Your task to perform on an android device: check android version Image 0: 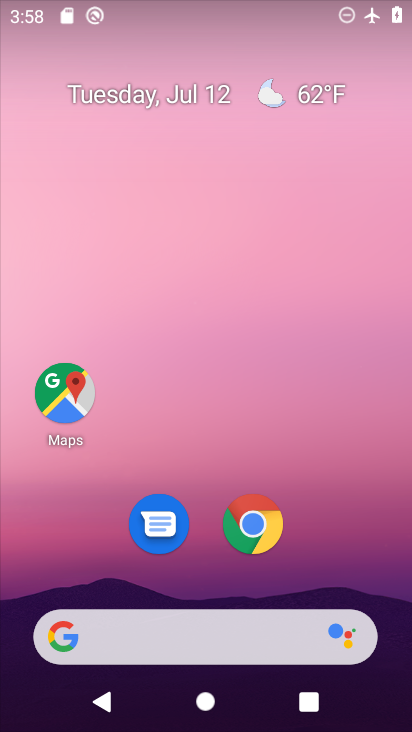
Step 0: drag from (350, 556) to (309, 43)
Your task to perform on an android device: check android version Image 1: 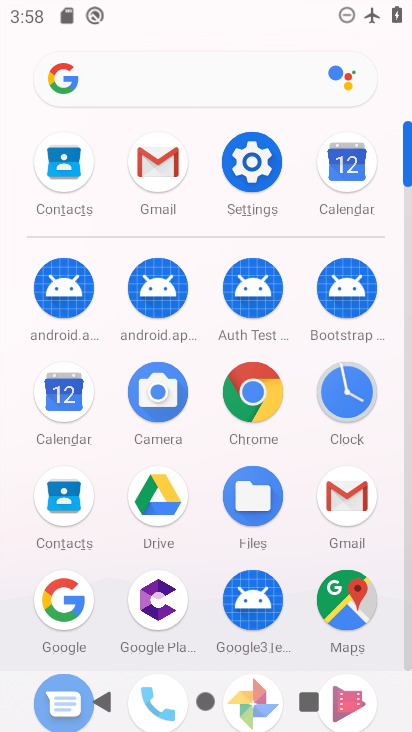
Step 1: click (265, 165)
Your task to perform on an android device: check android version Image 2: 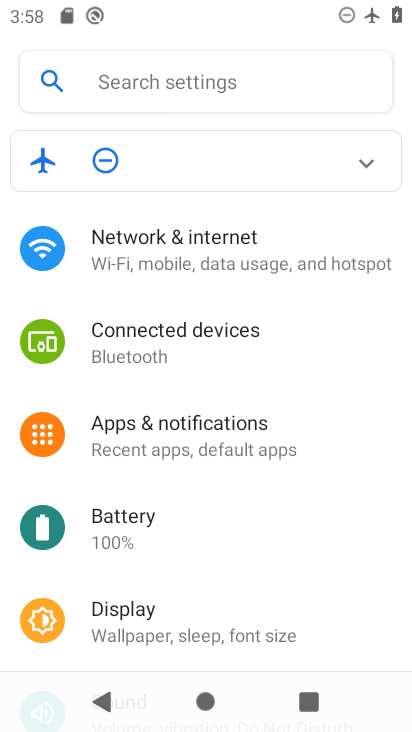
Step 2: drag from (264, 520) to (247, 100)
Your task to perform on an android device: check android version Image 3: 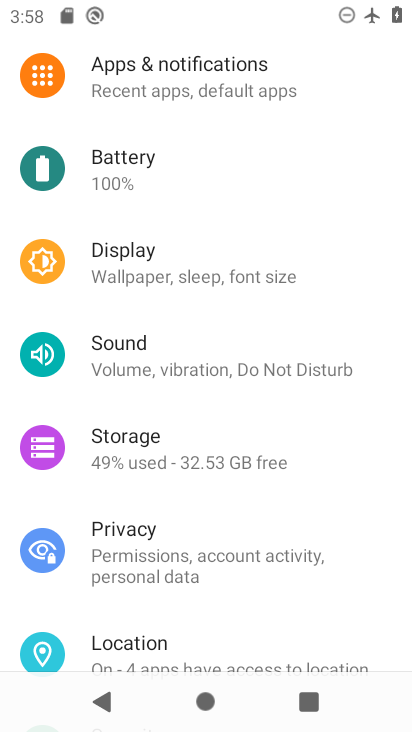
Step 3: drag from (232, 503) to (229, 0)
Your task to perform on an android device: check android version Image 4: 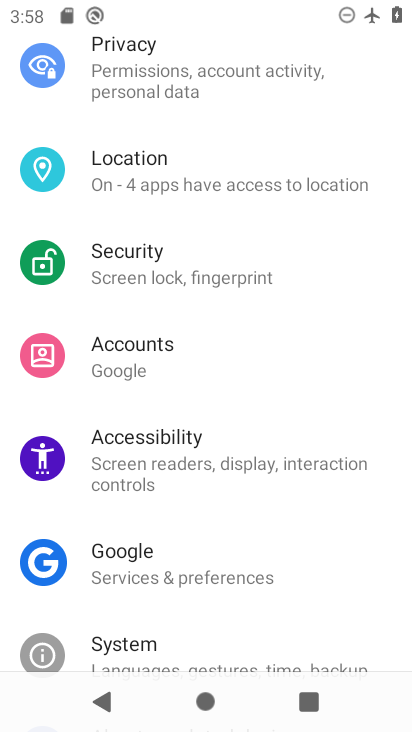
Step 4: drag from (236, 380) to (245, 81)
Your task to perform on an android device: check android version Image 5: 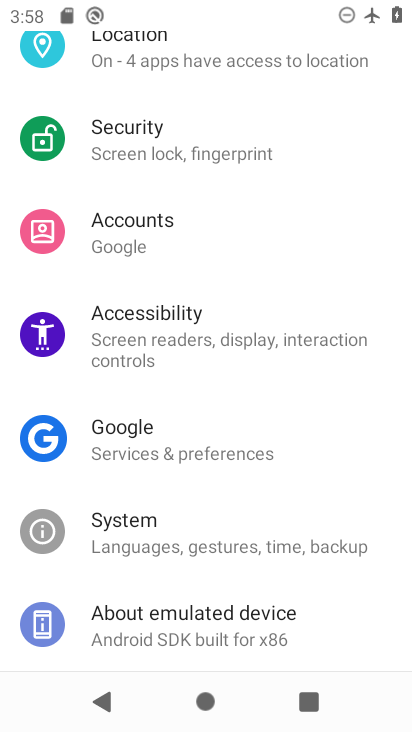
Step 5: click (258, 617)
Your task to perform on an android device: check android version Image 6: 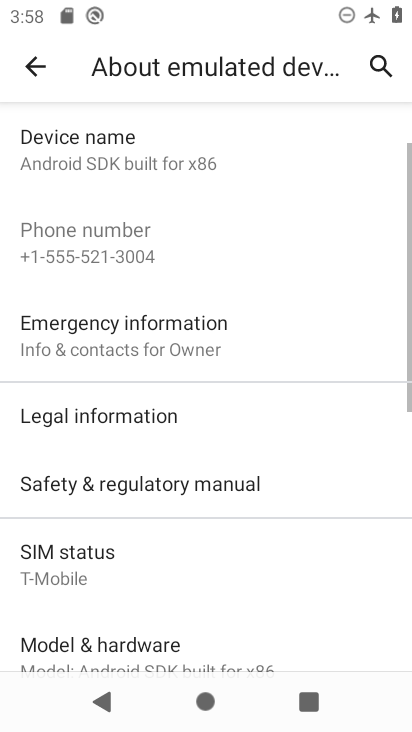
Step 6: drag from (177, 571) to (228, 152)
Your task to perform on an android device: check android version Image 7: 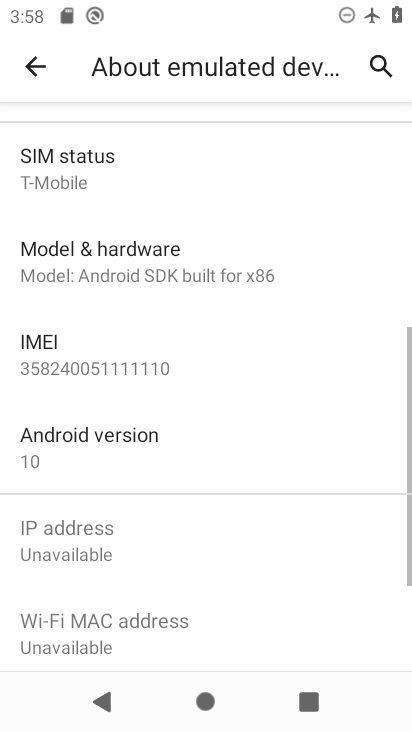
Step 7: click (163, 451)
Your task to perform on an android device: check android version Image 8: 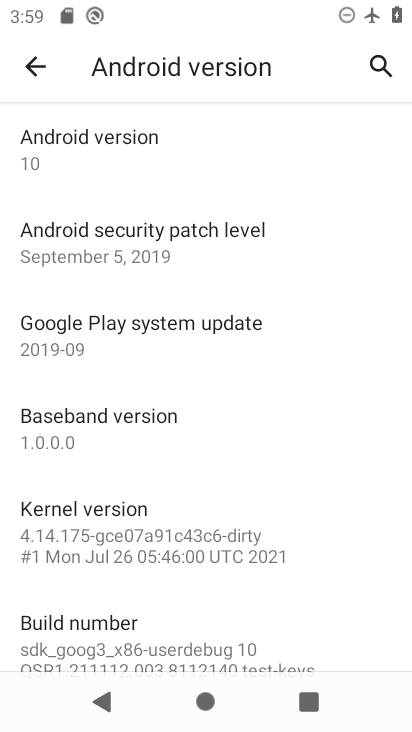
Step 8: click (130, 145)
Your task to perform on an android device: check android version Image 9: 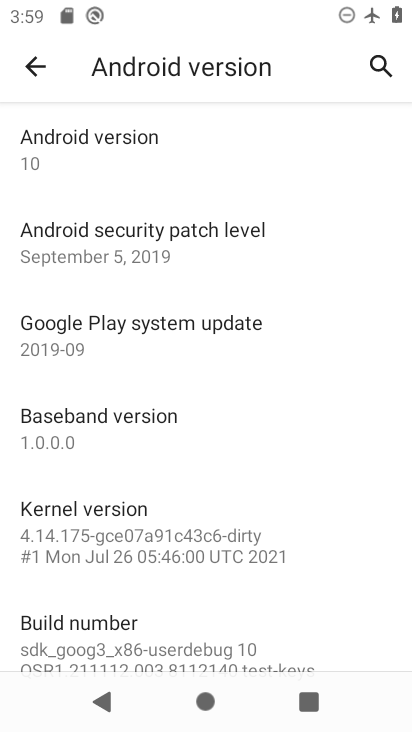
Step 9: task complete